Your task to perform on an android device: toggle javascript in the chrome app Image 0: 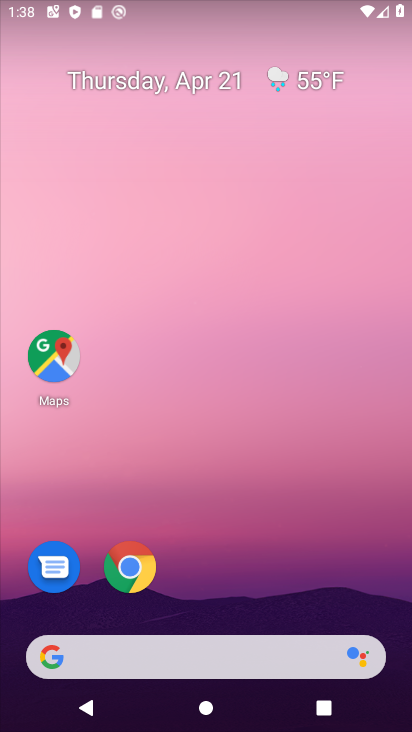
Step 0: click (135, 568)
Your task to perform on an android device: toggle javascript in the chrome app Image 1: 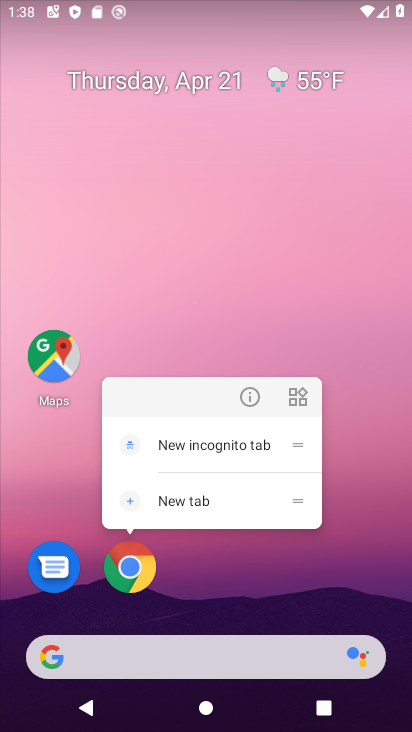
Step 1: click (132, 563)
Your task to perform on an android device: toggle javascript in the chrome app Image 2: 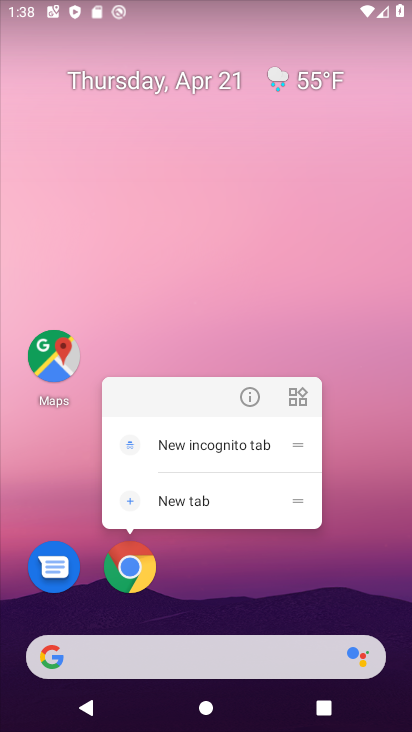
Step 2: click (129, 558)
Your task to perform on an android device: toggle javascript in the chrome app Image 3: 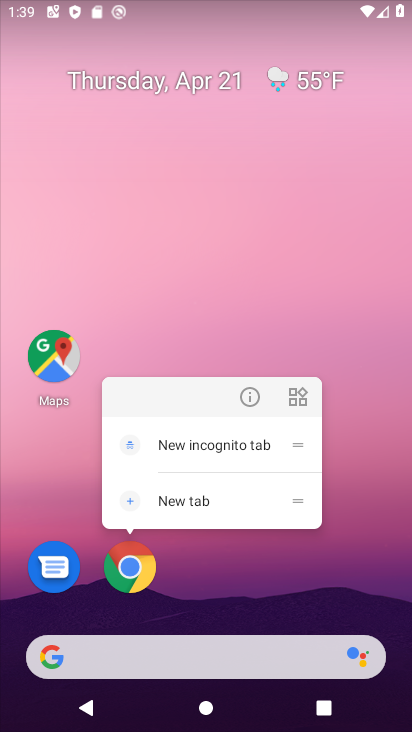
Step 3: click (129, 558)
Your task to perform on an android device: toggle javascript in the chrome app Image 4: 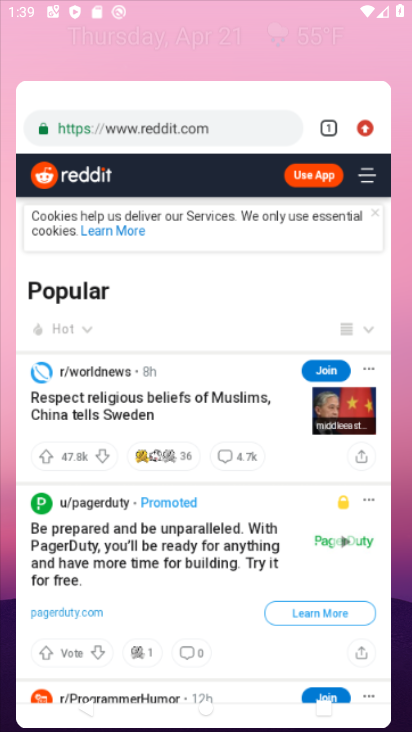
Step 4: click (210, 586)
Your task to perform on an android device: toggle javascript in the chrome app Image 5: 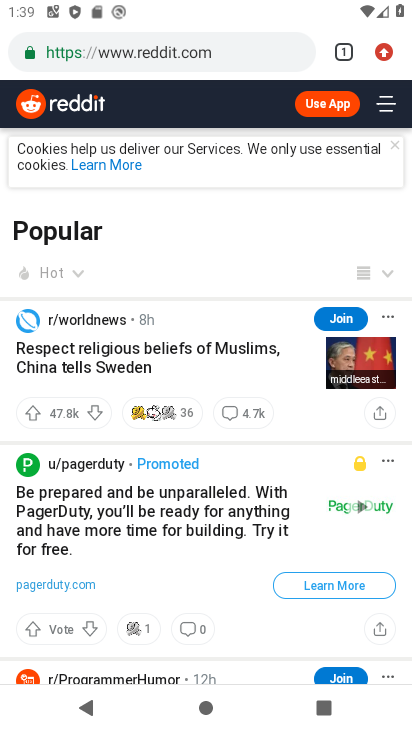
Step 5: click (378, 46)
Your task to perform on an android device: toggle javascript in the chrome app Image 6: 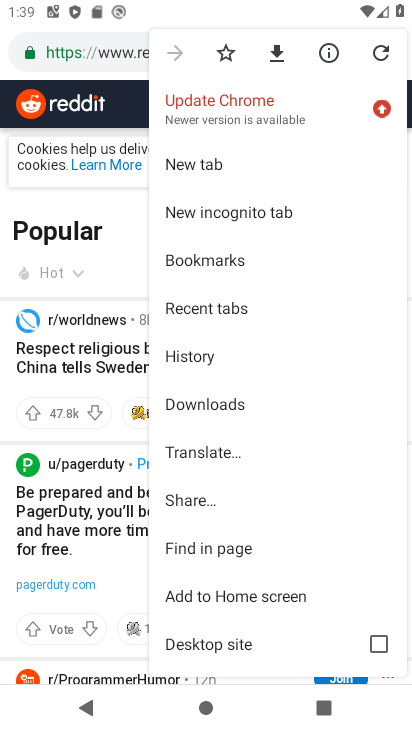
Step 6: drag from (245, 621) to (262, 221)
Your task to perform on an android device: toggle javascript in the chrome app Image 7: 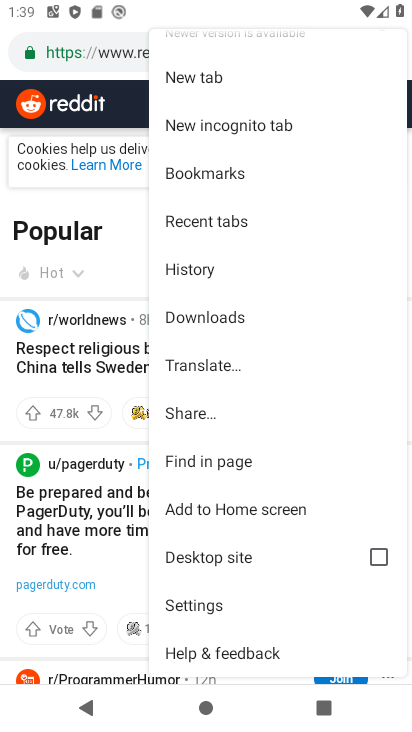
Step 7: click (245, 605)
Your task to perform on an android device: toggle javascript in the chrome app Image 8: 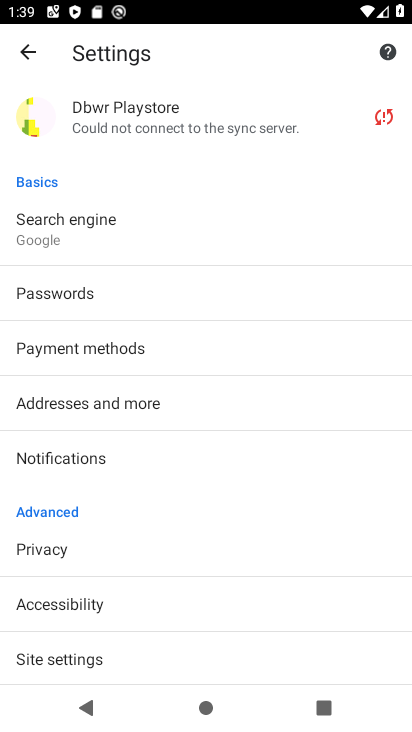
Step 8: click (111, 654)
Your task to perform on an android device: toggle javascript in the chrome app Image 9: 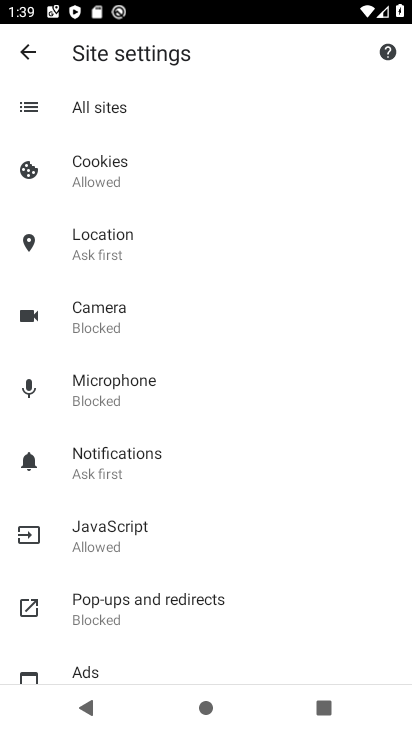
Step 9: click (123, 535)
Your task to perform on an android device: toggle javascript in the chrome app Image 10: 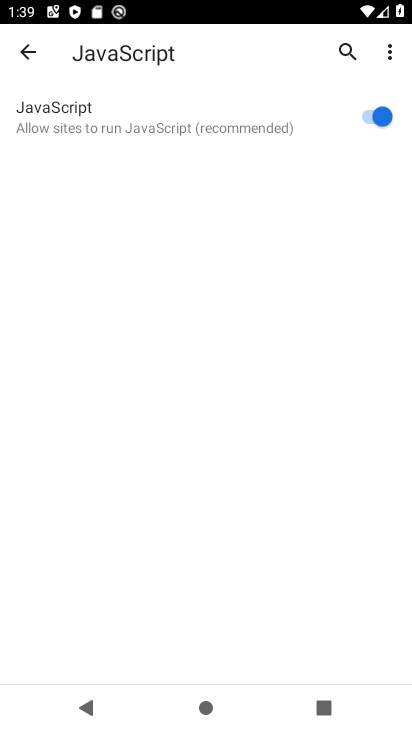
Step 10: click (364, 114)
Your task to perform on an android device: toggle javascript in the chrome app Image 11: 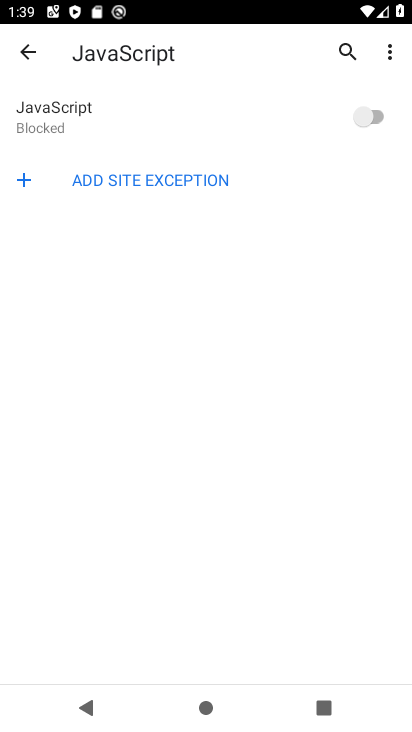
Step 11: task complete